Your task to perform on an android device: change your default location settings in chrome Image 0: 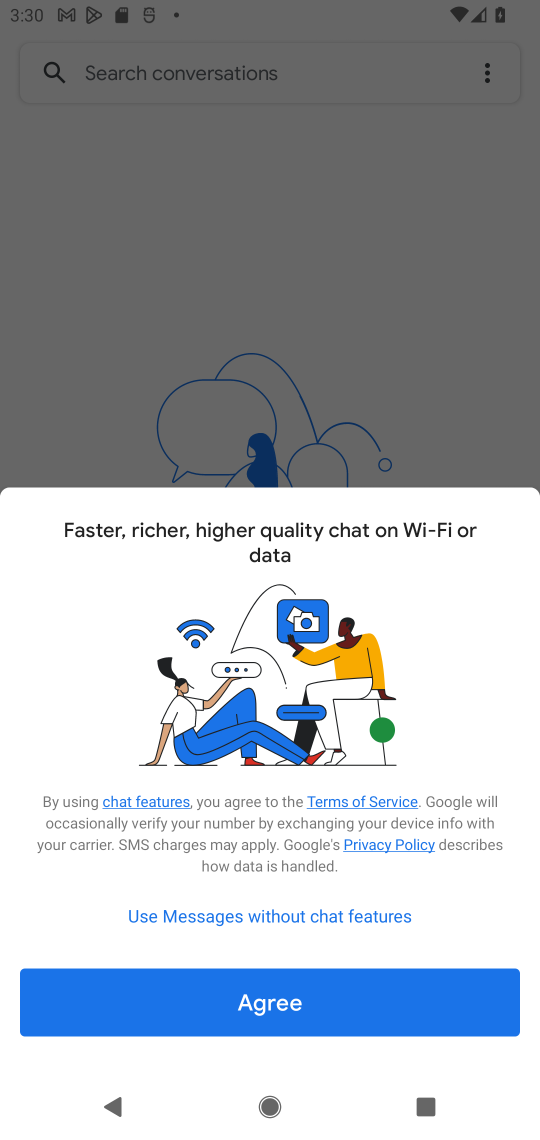
Step 0: press home button
Your task to perform on an android device: change your default location settings in chrome Image 1: 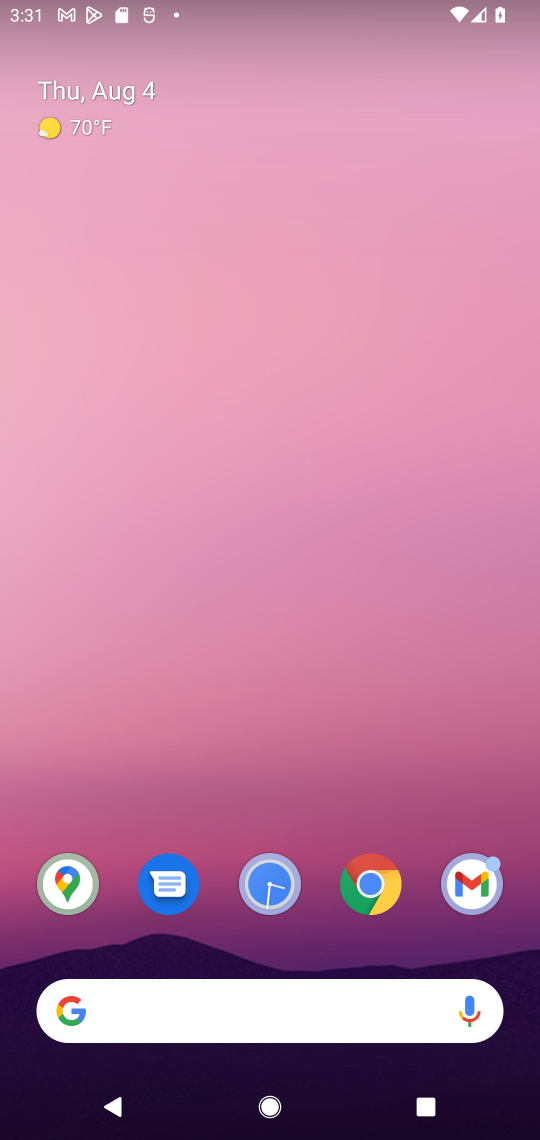
Step 1: click (372, 907)
Your task to perform on an android device: change your default location settings in chrome Image 2: 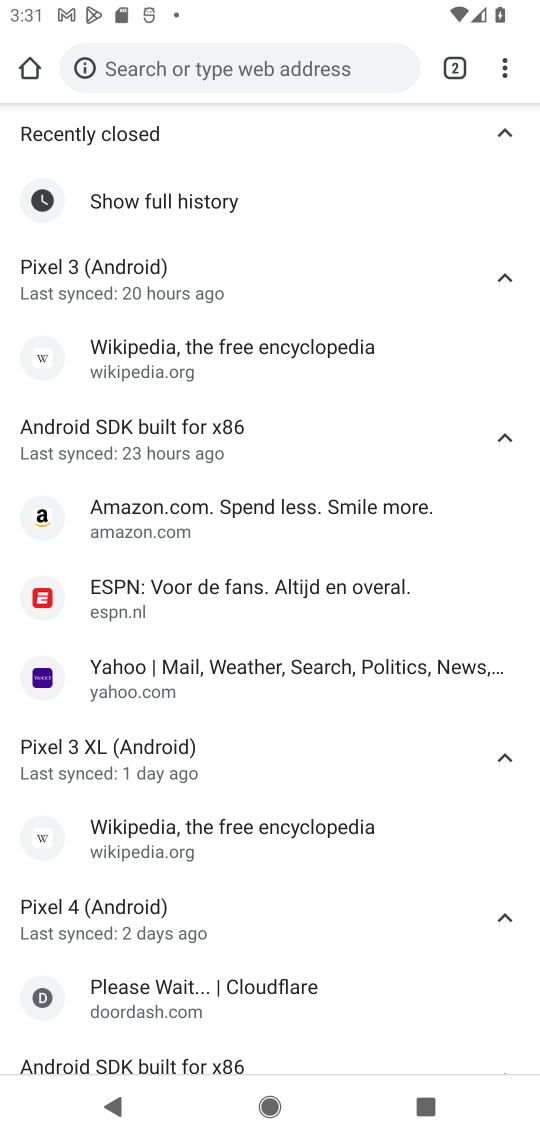
Step 2: click (503, 73)
Your task to perform on an android device: change your default location settings in chrome Image 3: 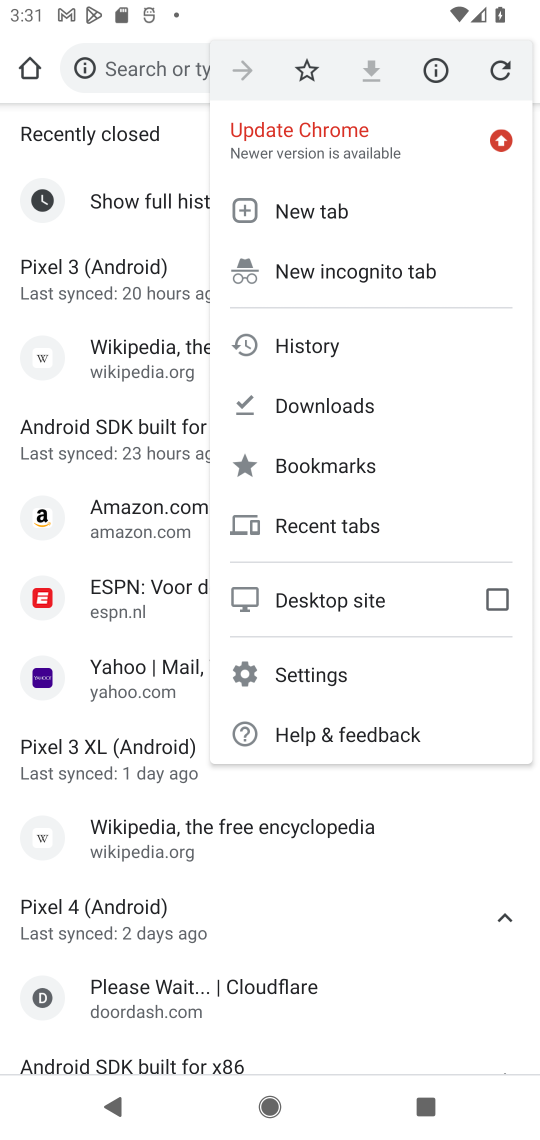
Step 3: click (294, 663)
Your task to perform on an android device: change your default location settings in chrome Image 4: 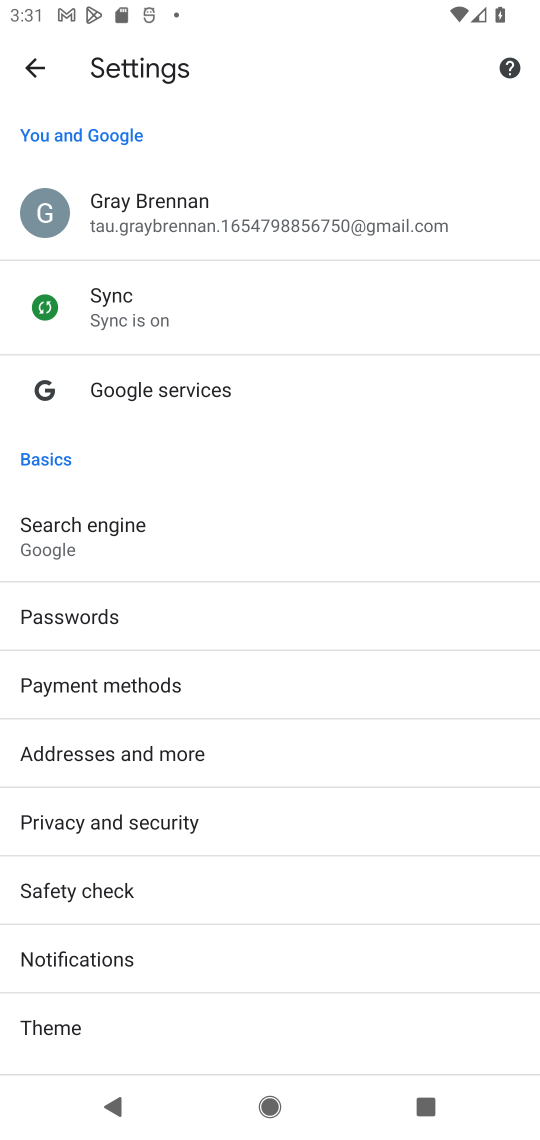
Step 4: click (170, 729)
Your task to perform on an android device: change your default location settings in chrome Image 5: 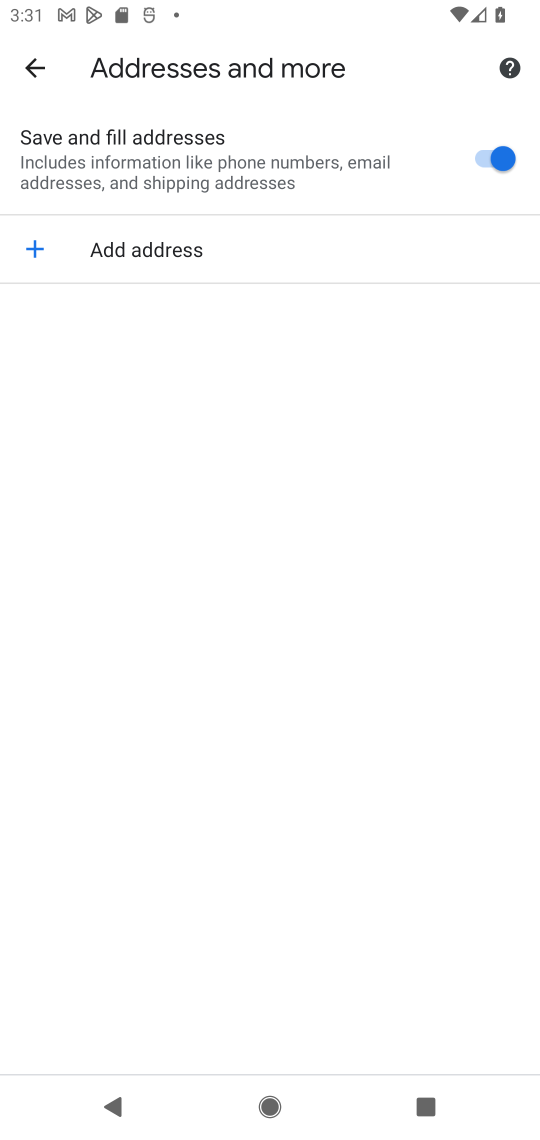
Step 5: task complete